Your task to perform on an android device: see tabs open on other devices in the chrome app Image 0: 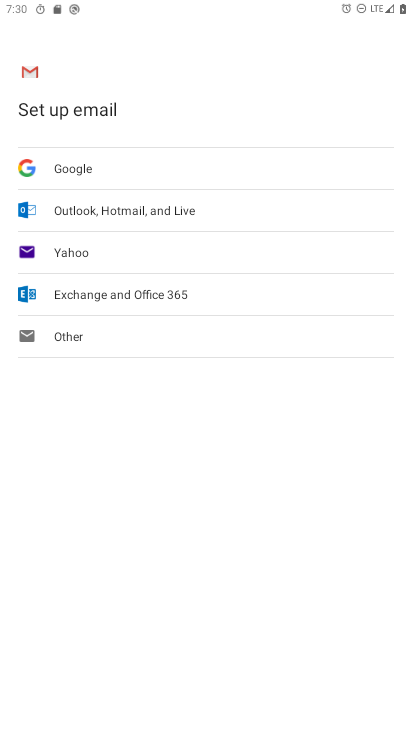
Step 0: press home button
Your task to perform on an android device: see tabs open on other devices in the chrome app Image 1: 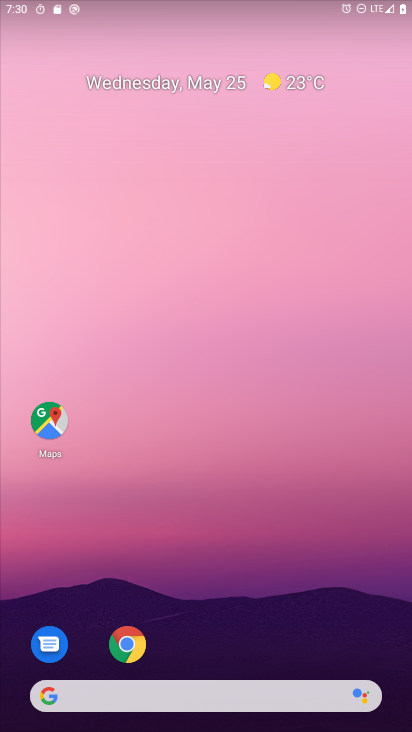
Step 1: drag from (331, 607) to (211, 24)
Your task to perform on an android device: see tabs open on other devices in the chrome app Image 2: 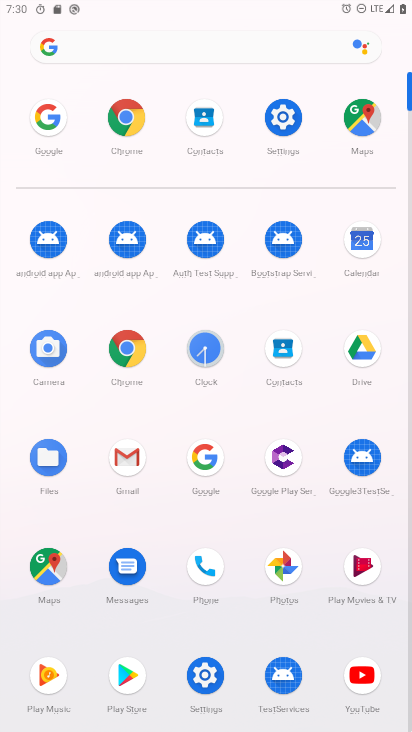
Step 2: click (122, 117)
Your task to perform on an android device: see tabs open on other devices in the chrome app Image 3: 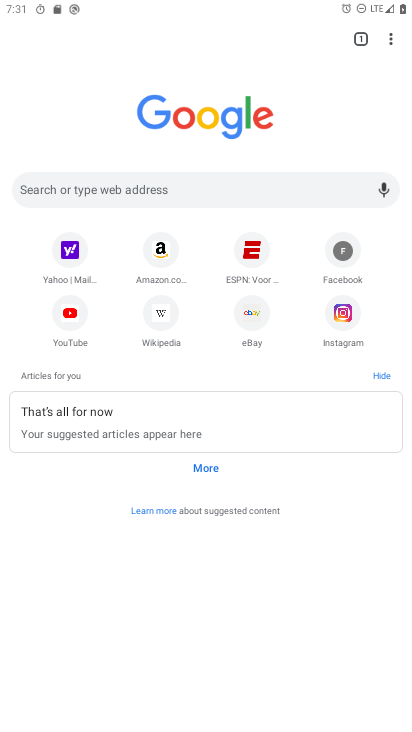
Step 3: task complete